Your task to perform on an android device: Go to ESPN.com Image 0: 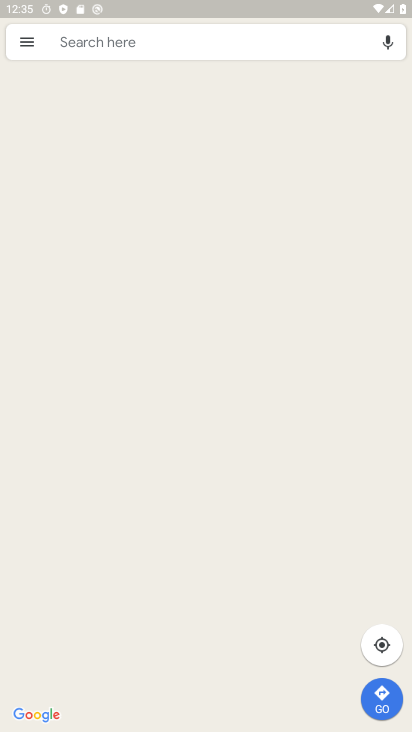
Step 0: click (274, 162)
Your task to perform on an android device: Go to ESPN.com Image 1: 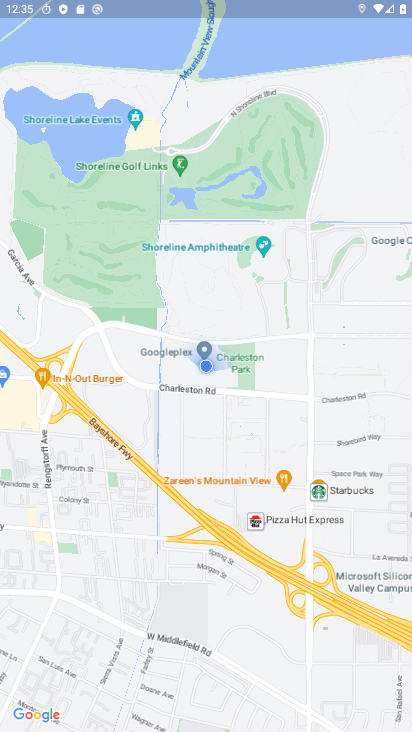
Step 1: press home button
Your task to perform on an android device: Go to ESPN.com Image 2: 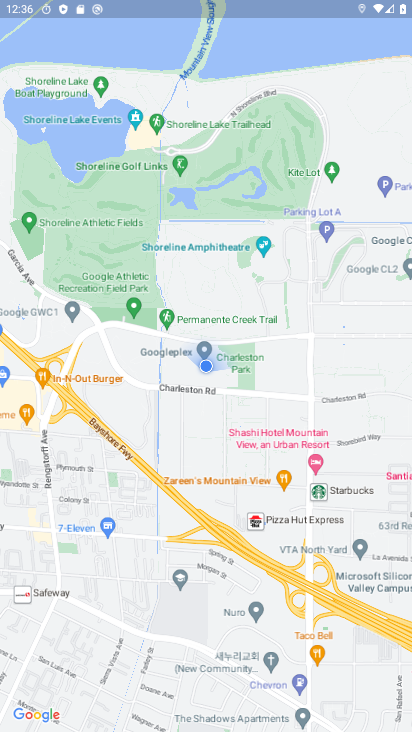
Step 2: click (212, 1)
Your task to perform on an android device: Go to ESPN.com Image 3: 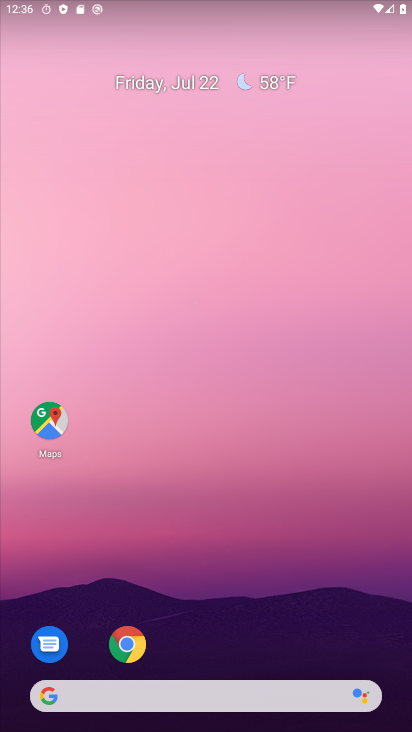
Step 3: drag from (202, 655) to (286, 64)
Your task to perform on an android device: Go to ESPN.com Image 4: 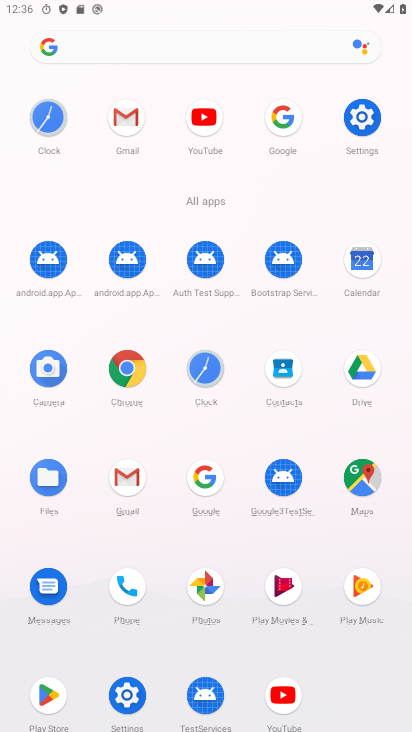
Step 4: click (130, 368)
Your task to perform on an android device: Go to ESPN.com Image 5: 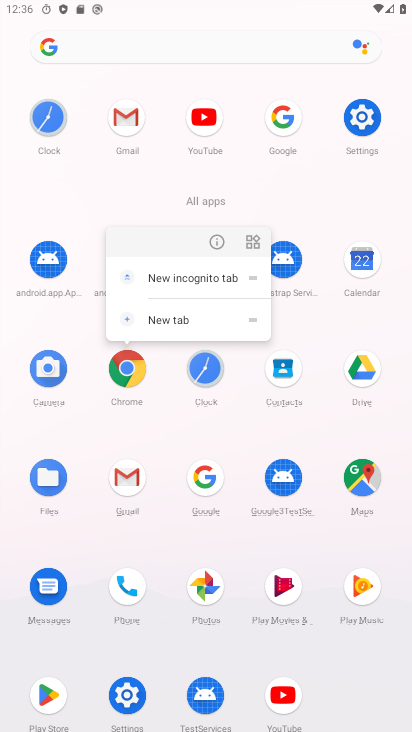
Step 5: click (213, 237)
Your task to perform on an android device: Go to ESPN.com Image 6: 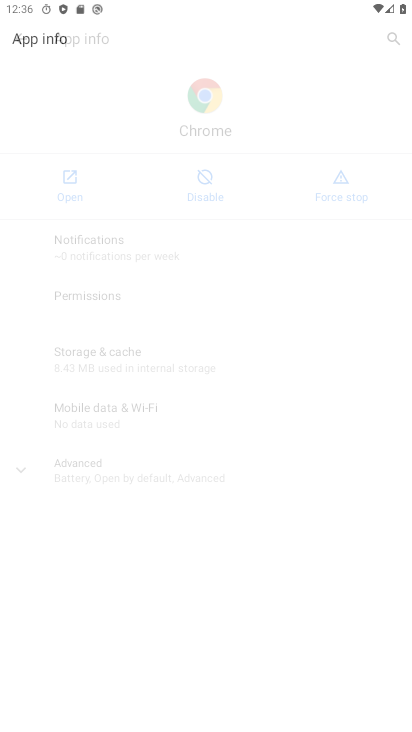
Step 6: drag from (156, 568) to (266, 156)
Your task to perform on an android device: Go to ESPN.com Image 7: 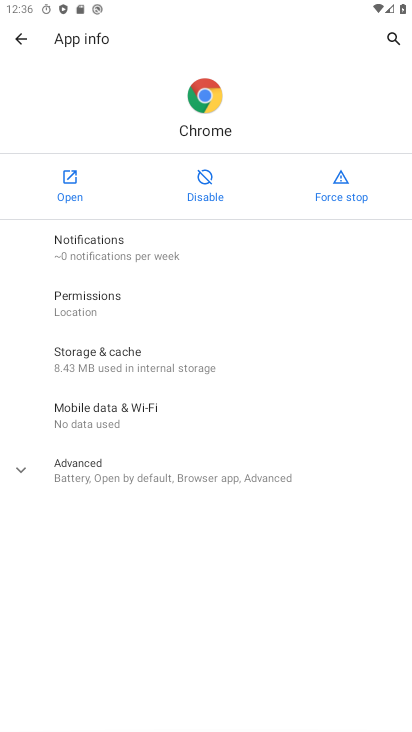
Step 7: click (50, 171)
Your task to perform on an android device: Go to ESPN.com Image 8: 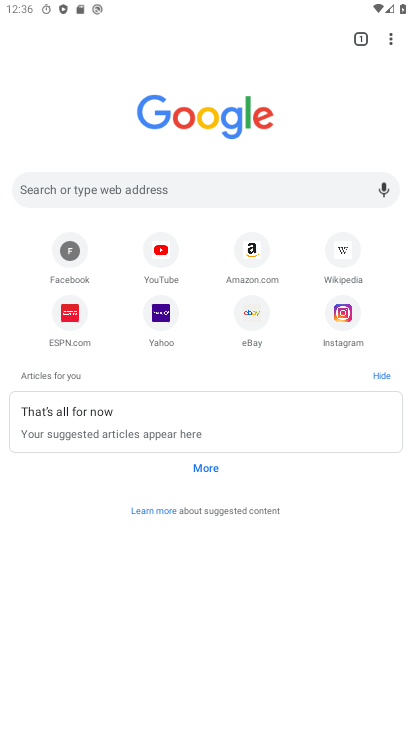
Step 8: drag from (171, 523) to (268, 200)
Your task to perform on an android device: Go to ESPN.com Image 9: 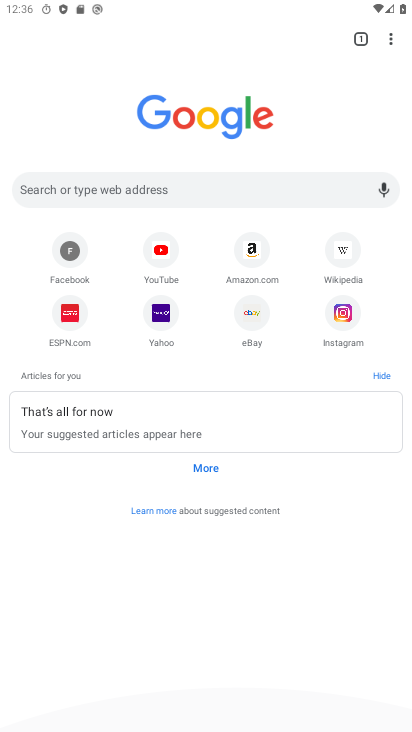
Step 9: drag from (212, 301) to (250, 678)
Your task to perform on an android device: Go to ESPN.com Image 10: 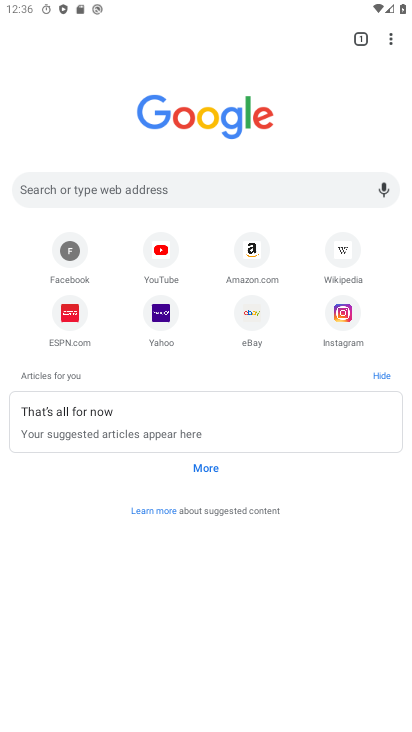
Step 10: click (72, 323)
Your task to perform on an android device: Go to ESPN.com Image 11: 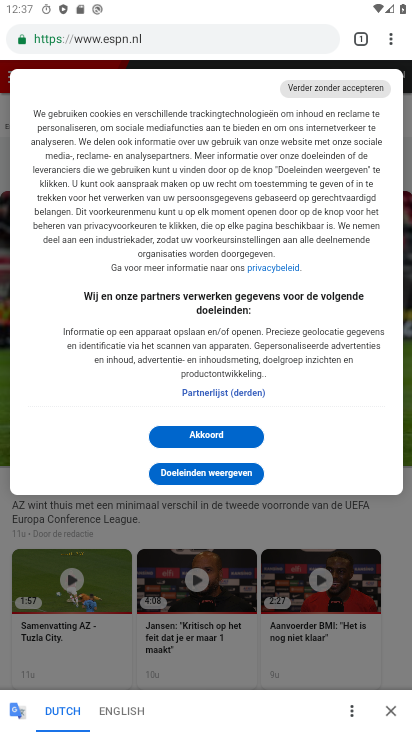
Step 11: task complete